Your task to perform on an android device: Open the map Image 0: 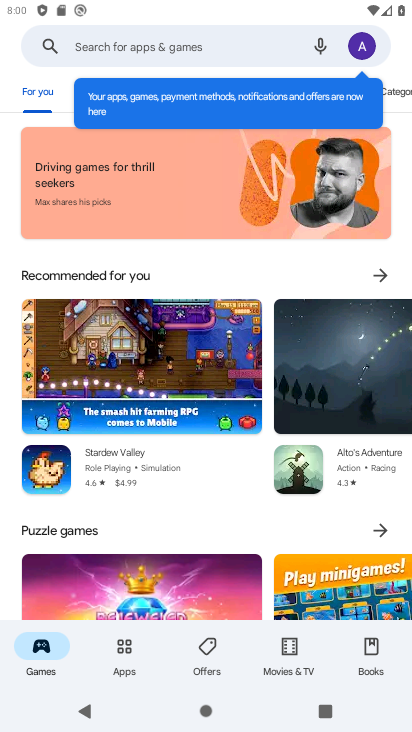
Step 0: press home button
Your task to perform on an android device: Open the map Image 1: 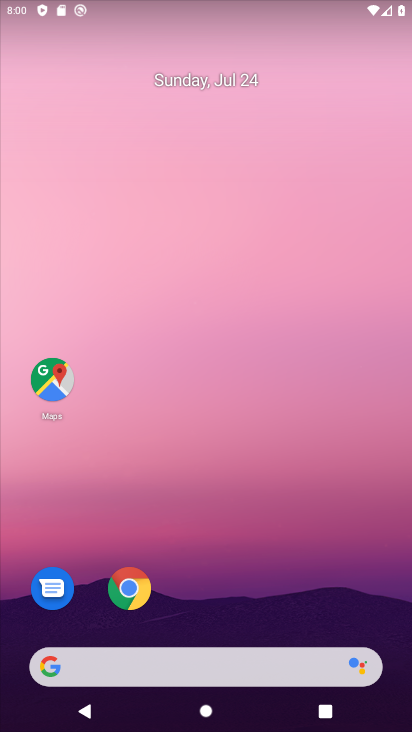
Step 1: click (35, 376)
Your task to perform on an android device: Open the map Image 2: 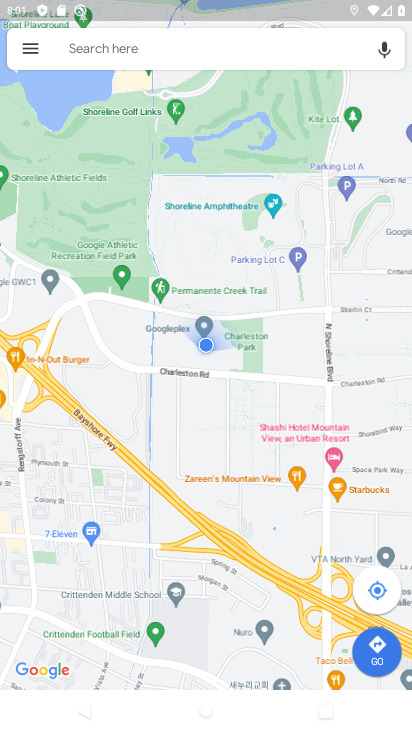
Step 2: task complete